Your task to perform on an android device: turn off sleep mode Image 0: 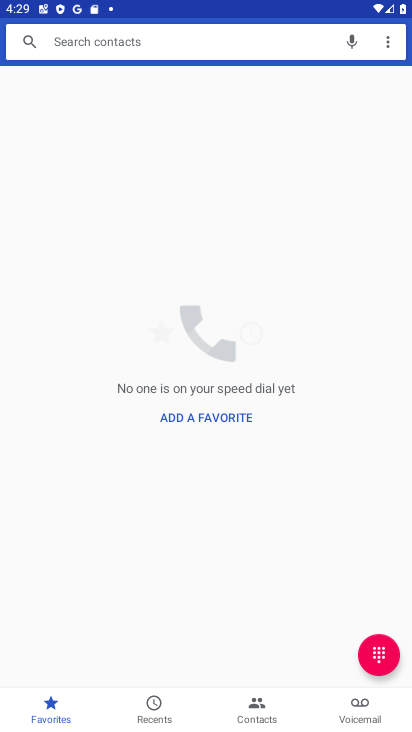
Step 0: press home button
Your task to perform on an android device: turn off sleep mode Image 1: 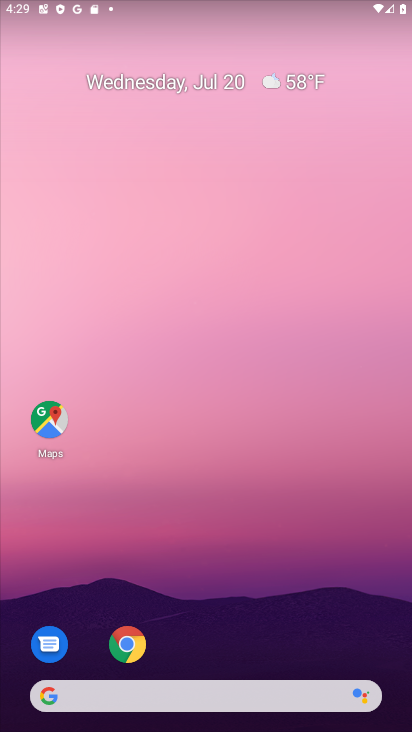
Step 1: drag from (234, 371) to (269, 7)
Your task to perform on an android device: turn off sleep mode Image 2: 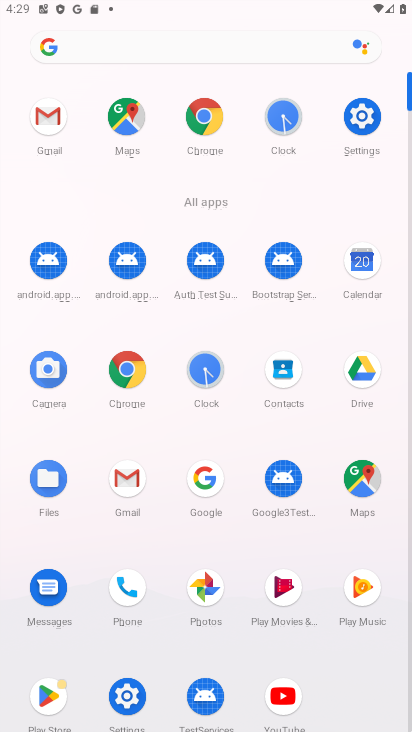
Step 2: click (360, 125)
Your task to perform on an android device: turn off sleep mode Image 3: 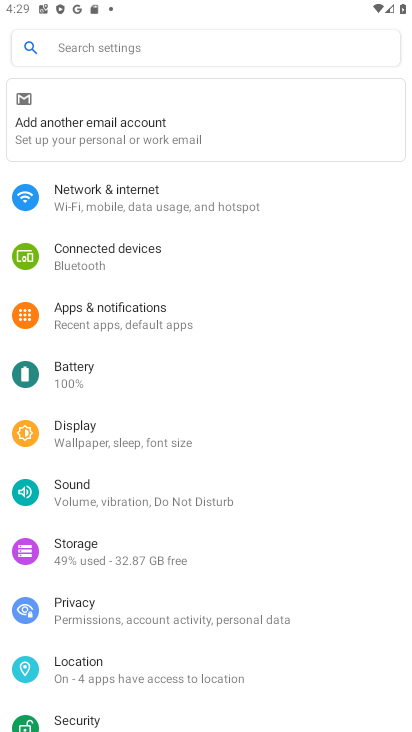
Step 3: click (57, 439)
Your task to perform on an android device: turn off sleep mode Image 4: 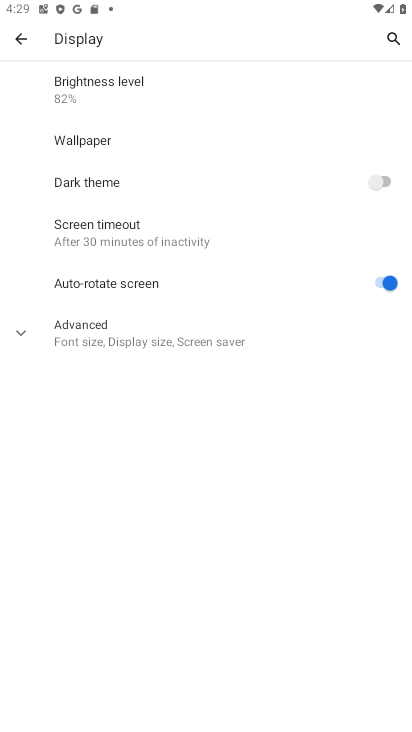
Step 4: task complete